Your task to perform on an android device: Open calendar and show me the fourth week of next month Image 0: 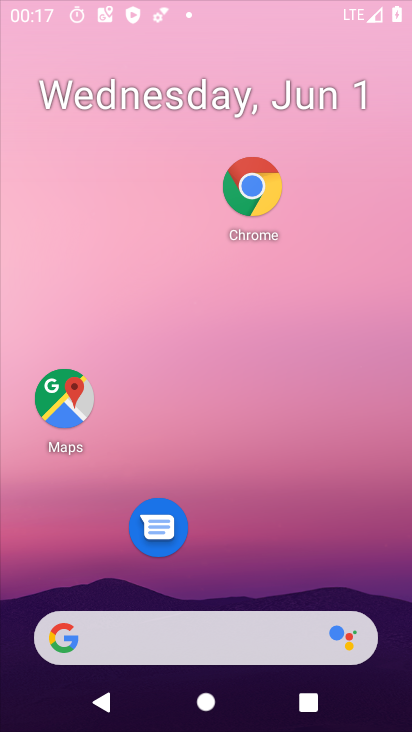
Step 0: click (222, 151)
Your task to perform on an android device: Open calendar and show me the fourth week of next month Image 1: 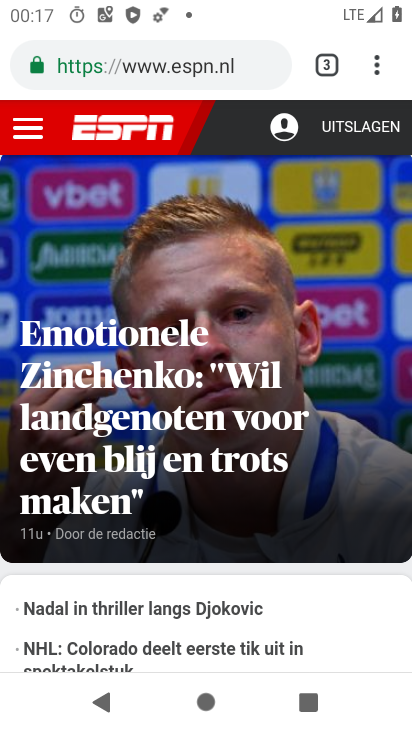
Step 1: press home button
Your task to perform on an android device: Open calendar and show me the fourth week of next month Image 2: 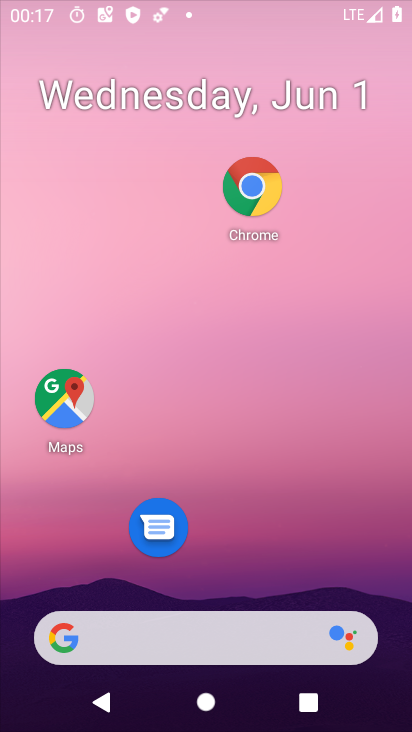
Step 2: drag from (244, 608) to (251, 96)
Your task to perform on an android device: Open calendar and show me the fourth week of next month Image 3: 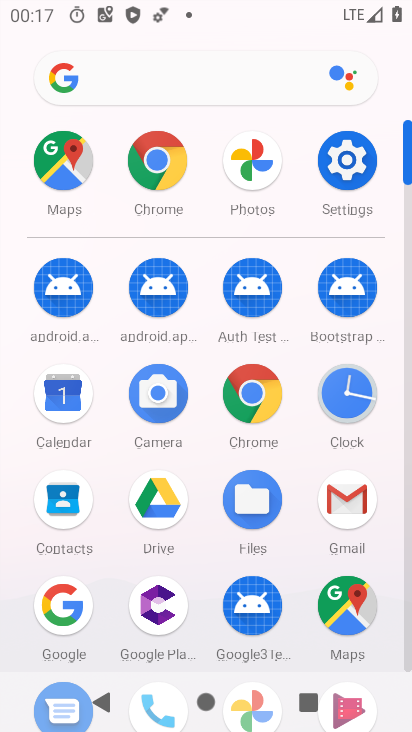
Step 3: drag from (218, 534) to (209, 123)
Your task to perform on an android device: Open calendar and show me the fourth week of next month Image 4: 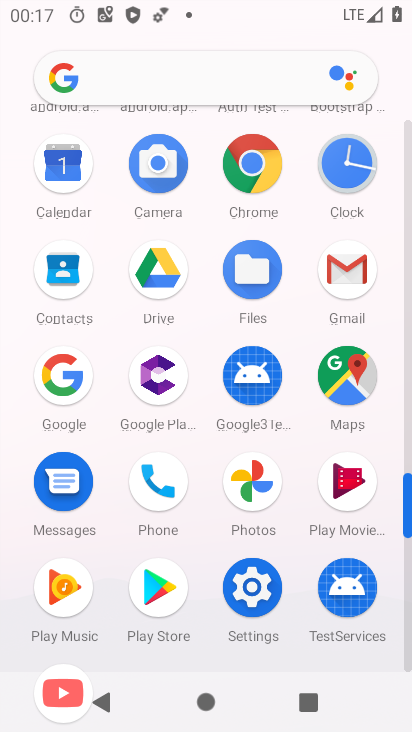
Step 4: click (69, 283)
Your task to perform on an android device: Open calendar and show me the fourth week of next month Image 5: 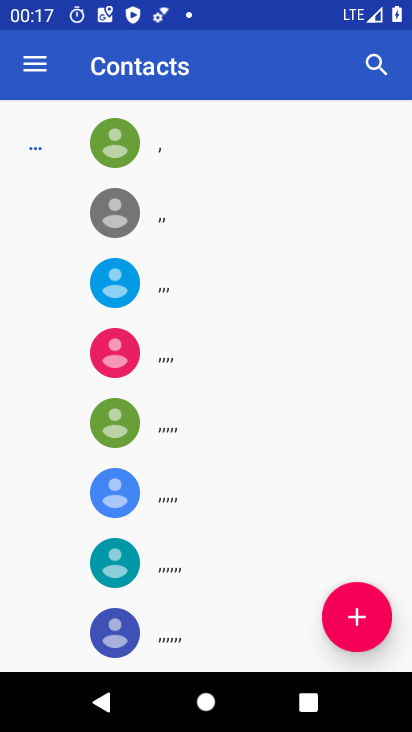
Step 5: drag from (202, 522) to (202, 166)
Your task to perform on an android device: Open calendar and show me the fourth week of next month Image 6: 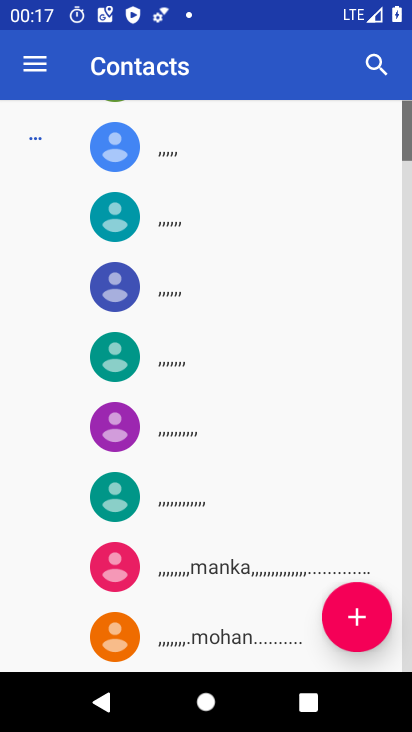
Step 6: drag from (279, 474) to (250, 117)
Your task to perform on an android device: Open calendar and show me the fourth week of next month Image 7: 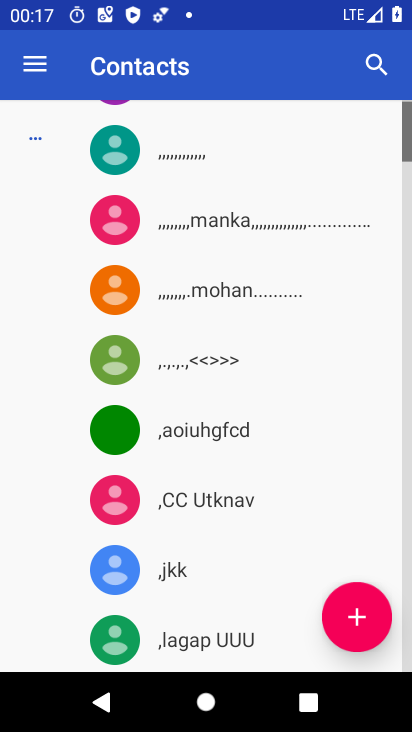
Step 7: drag from (199, 478) to (163, 274)
Your task to perform on an android device: Open calendar and show me the fourth week of next month Image 8: 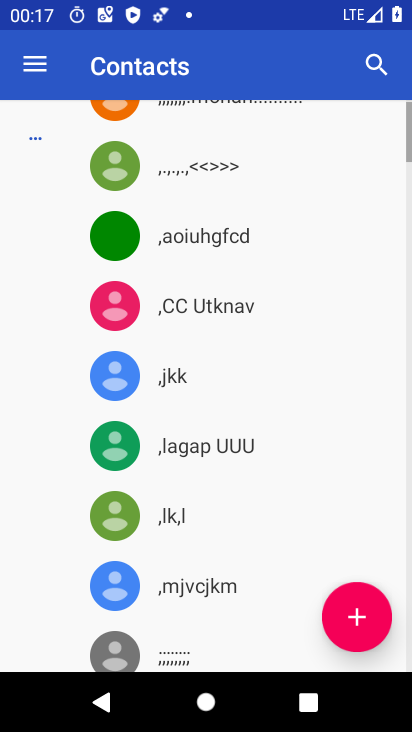
Step 8: drag from (226, 467) to (219, 223)
Your task to perform on an android device: Open calendar and show me the fourth week of next month Image 9: 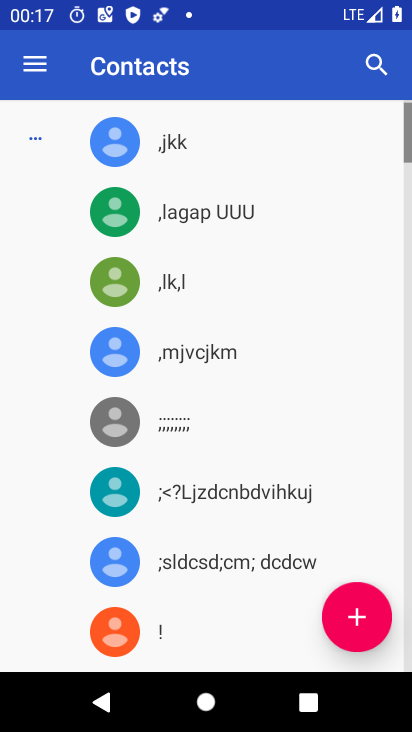
Step 9: drag from (279, 573) to (247, 289)
Your task to perform on an android device: Open calendar and show me the fourth week of next month Image 10: 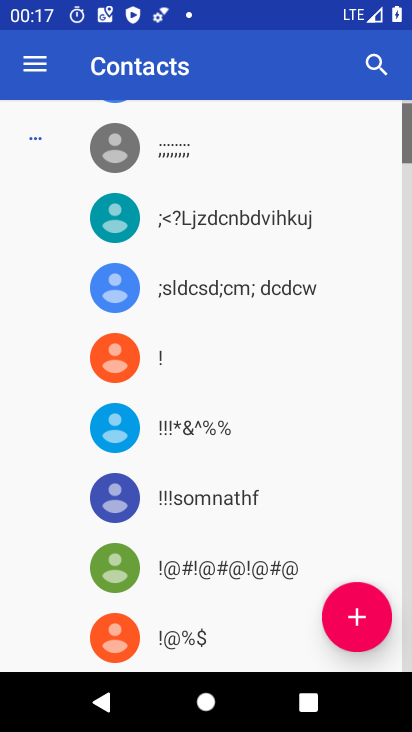
Step 10: drag from (238, 511) to (187, 296)
Your task to perform on an android device: Open calendar and show me the fourth week of next month Image 11: 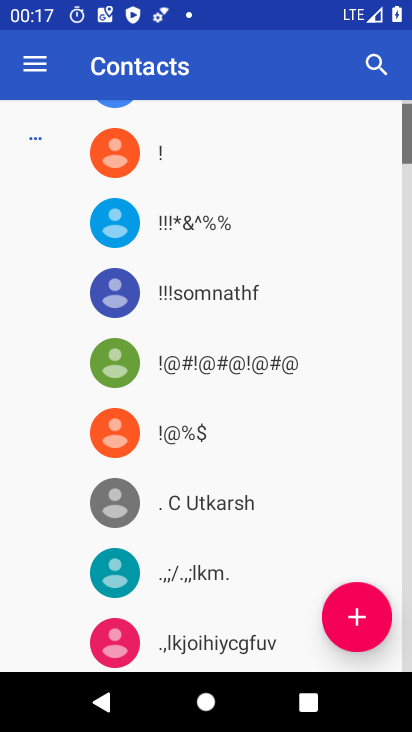
Step 11: drag from (252, 503) to (240, 382)
Your task to perform on an android device: Open calendar and show me the fourth week of next month Image 12: 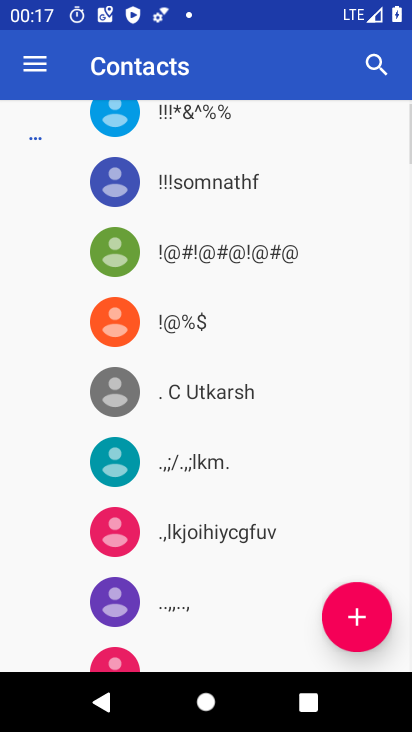
Step 12: drag from (264, 425) to (238, 252)
Your task to perform on an android device: Open calendar and show me the fourth week of next month Image 13: 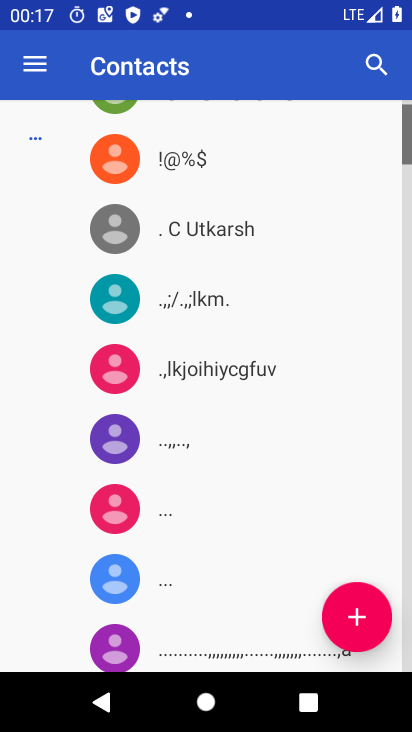
Step 13: drag from (285, 572) to (264, 100)
Your task to perform on an android device: Open calendar and show me the fourth week of next month Image 14: 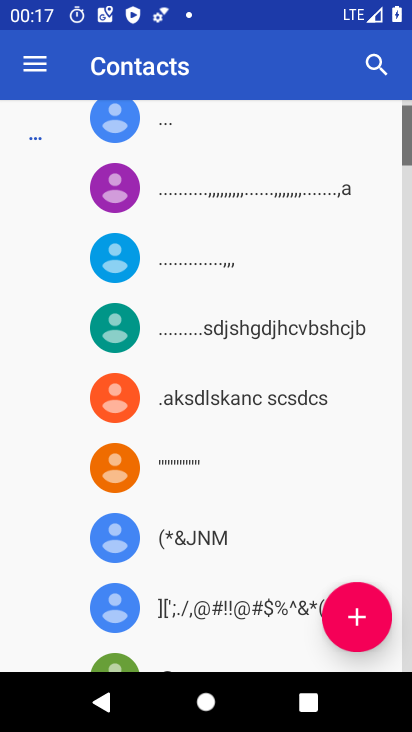
Step 14: drag from (306, 529) to (242, 57)
Your task to perform on an android device: Open calendar and show me the fourth week of next month Image 15: 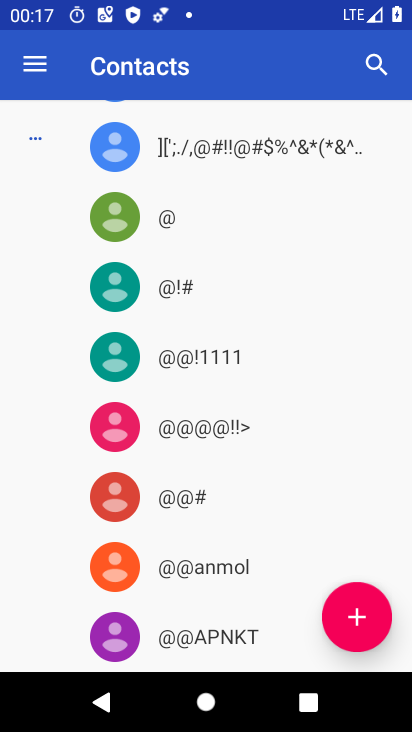
Step 15: press home button
Your task to perform on an android device: Open calendar and show me the fourth week of next month Image 16: 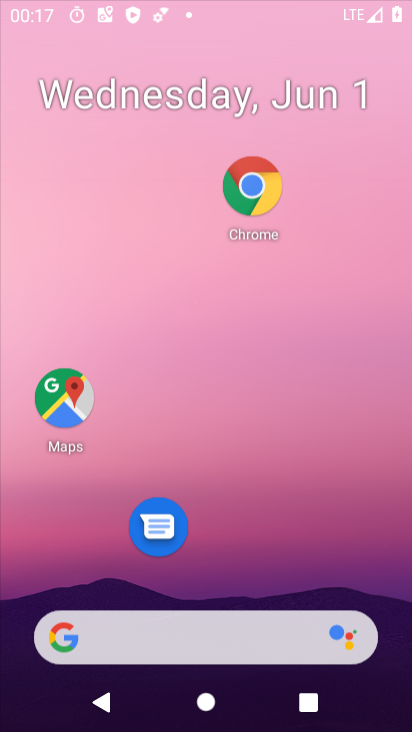
Step 16: click (186, 127)
Your task to perform on an android device: Open calendar and show me the fourth week of next month Image 17: 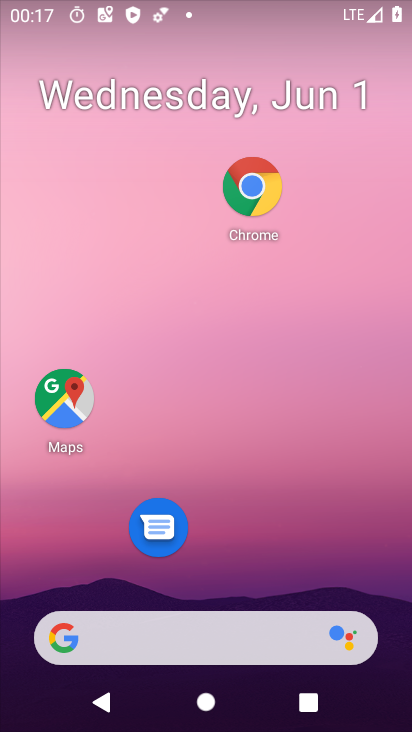
Step 17: drag from (242, 498) to (239, 53)
Your task to perform on an android device: Open calendar and show me the fourth week of next month Image 18: 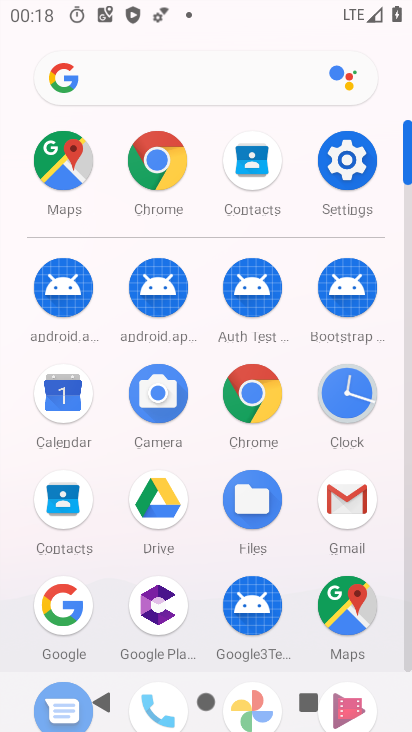
Step 18: click (60, 411)
Your task to perform on an android device: Open calendar and show me the fourth week of next month Image 19: 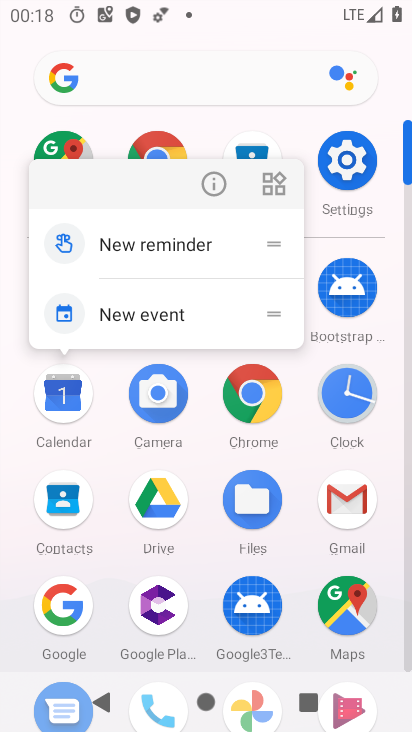
Step 19: click (213, 175)
Your task to perform on an android device: Open calendar and show me the fourth week of next month Image 20: 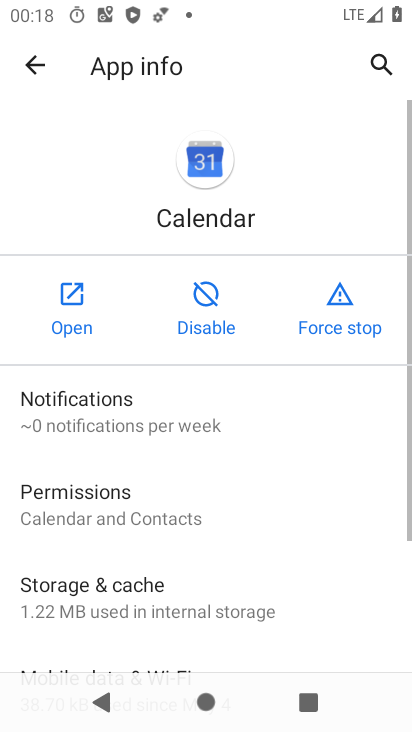
Step 20: click (74, 293)
Your task to perform on an android device: Open calendar and show me the fourth week of next month Image 21: 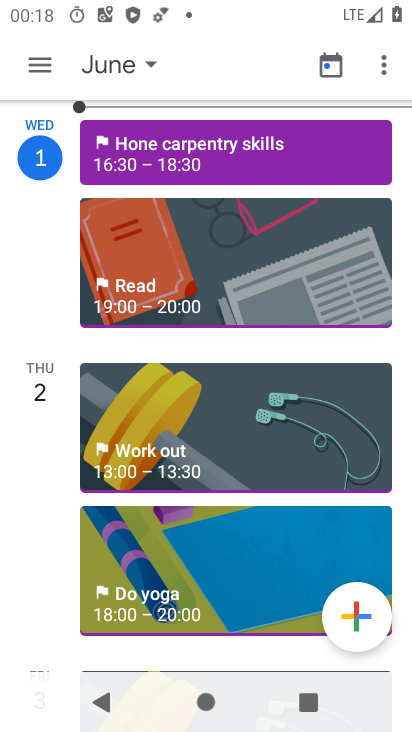
Step 21: click (149, 71)
Your task to perform on an android device: Open calendar and show me the fourth week of next month Image 22: 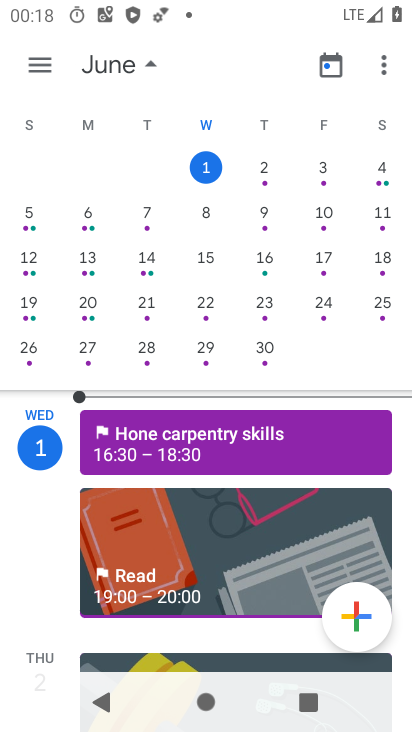
Step 22: drag from (330, 226) to (9, 349)
Your task to perform on an android device: Open calendar and show me the fourth week of next month Image 23: 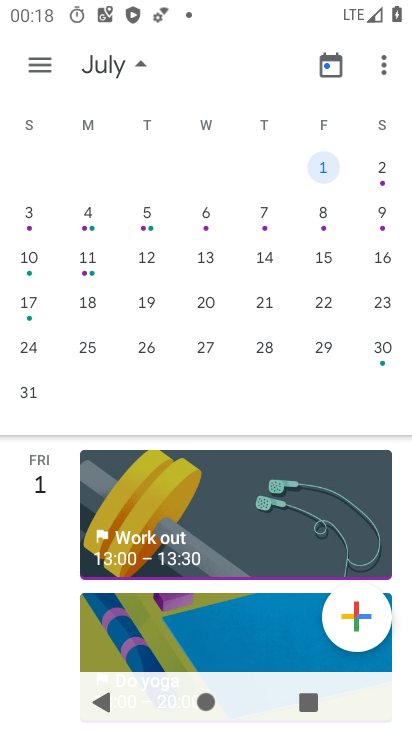
Step 23: click (325, 297)
Your task to perform on an android device: Open calendar and show me the fourth week of next month Image 24: 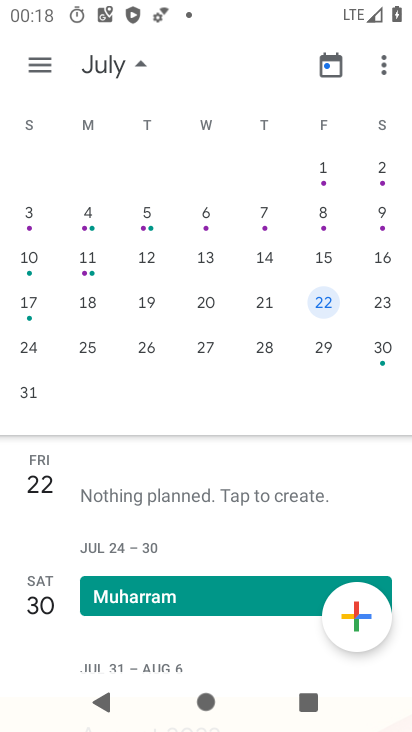
Step 24: task complete